Your task to perform on an android device: Go to wifi settings Image 0: 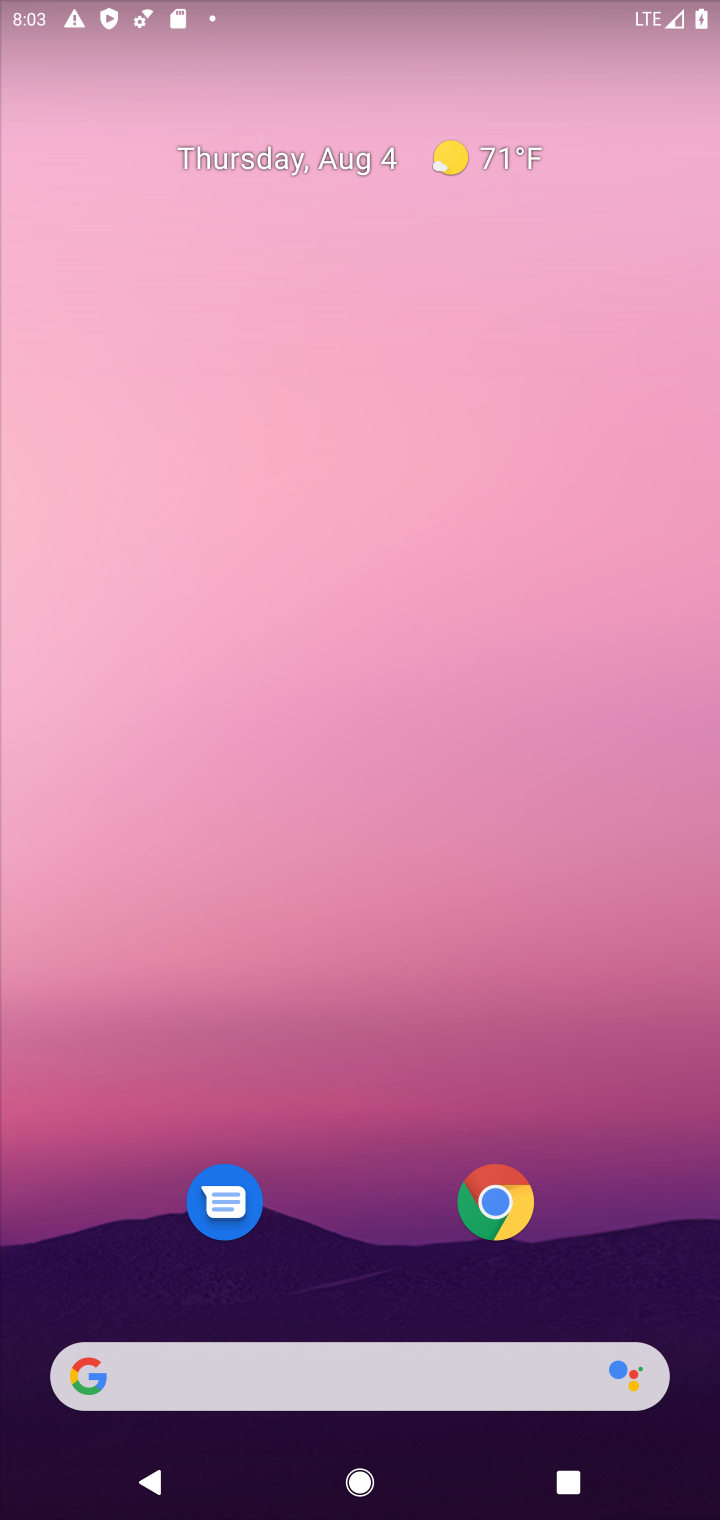
Step 0: drag from (391, 985) to (401, 373)
Your task to perform on an android device: Go to wifi settings Image 1: 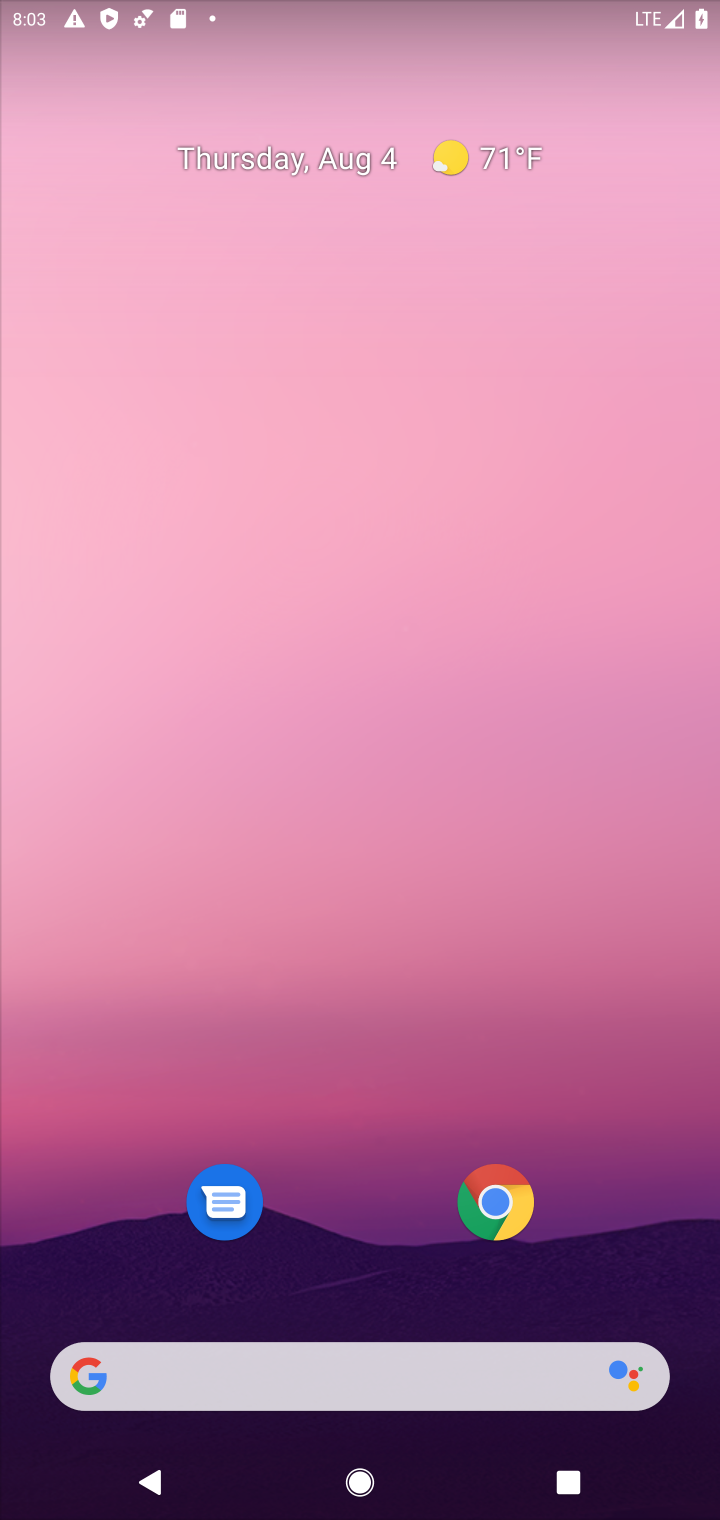
Step 1: drag from (382, 1143) to (382, 180)
Your task to perform on an android device: Go to wifi settings Image 2: 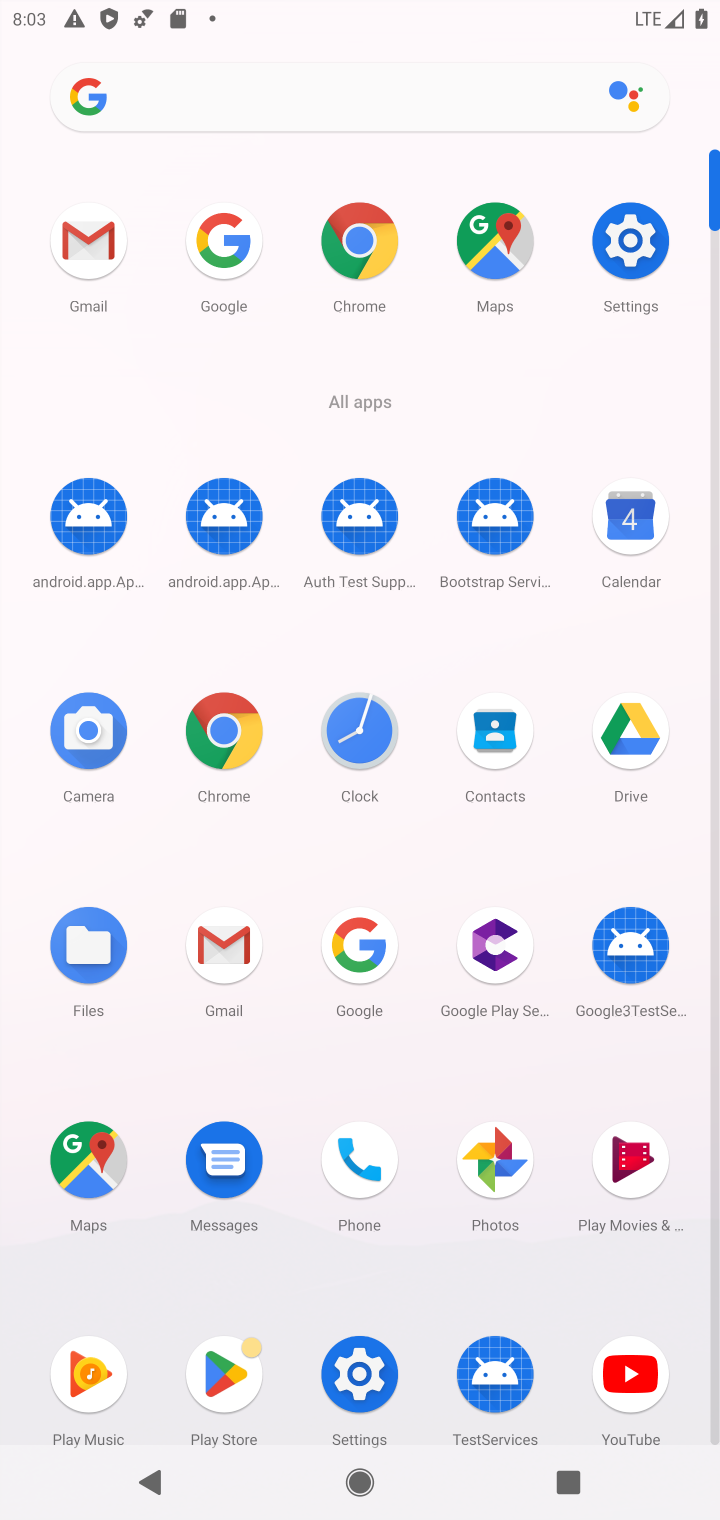
Step 2: click (617, 276)
Your task to perform on an android device: Go to wifi settings Image 3: 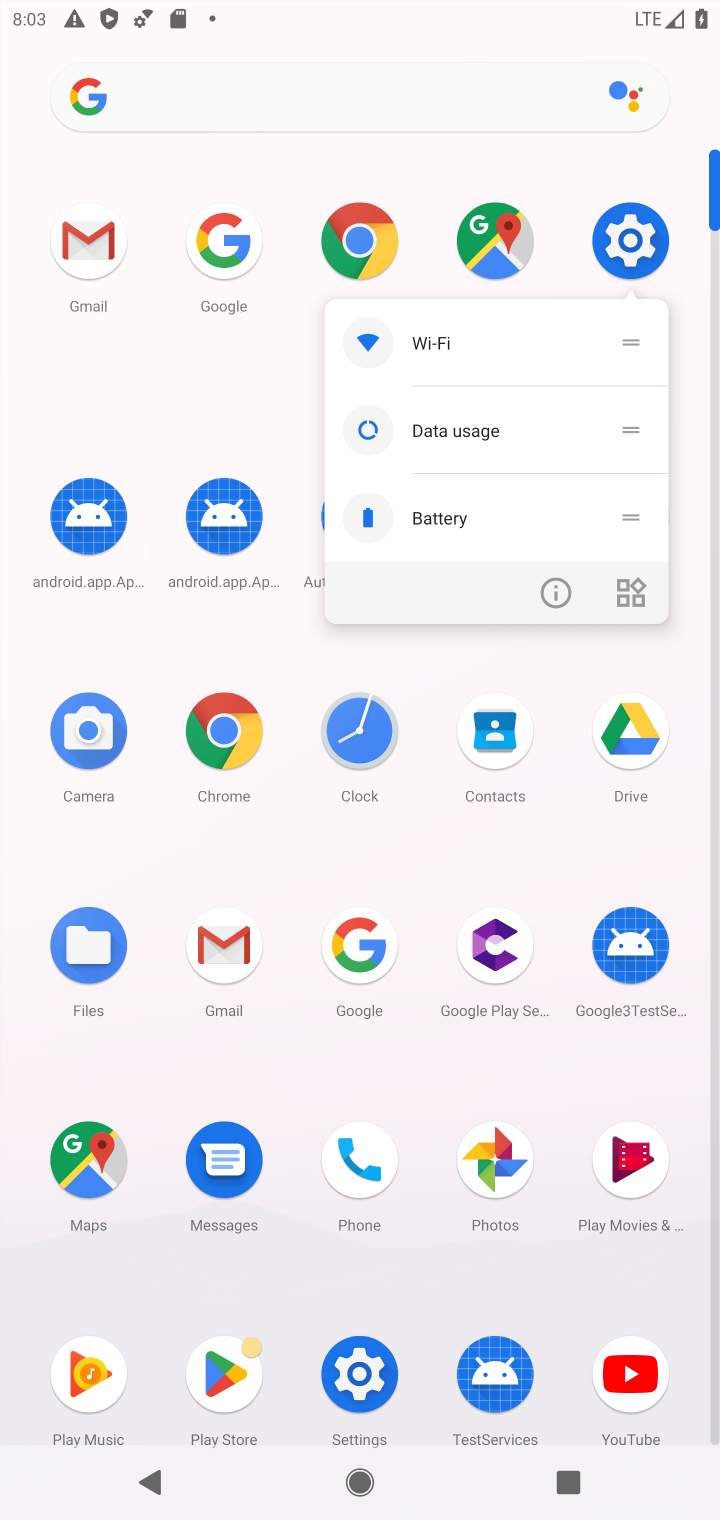
Step 3: click (626, 253)
Your task to perform on an android device: Go to wifi settings Image 4: 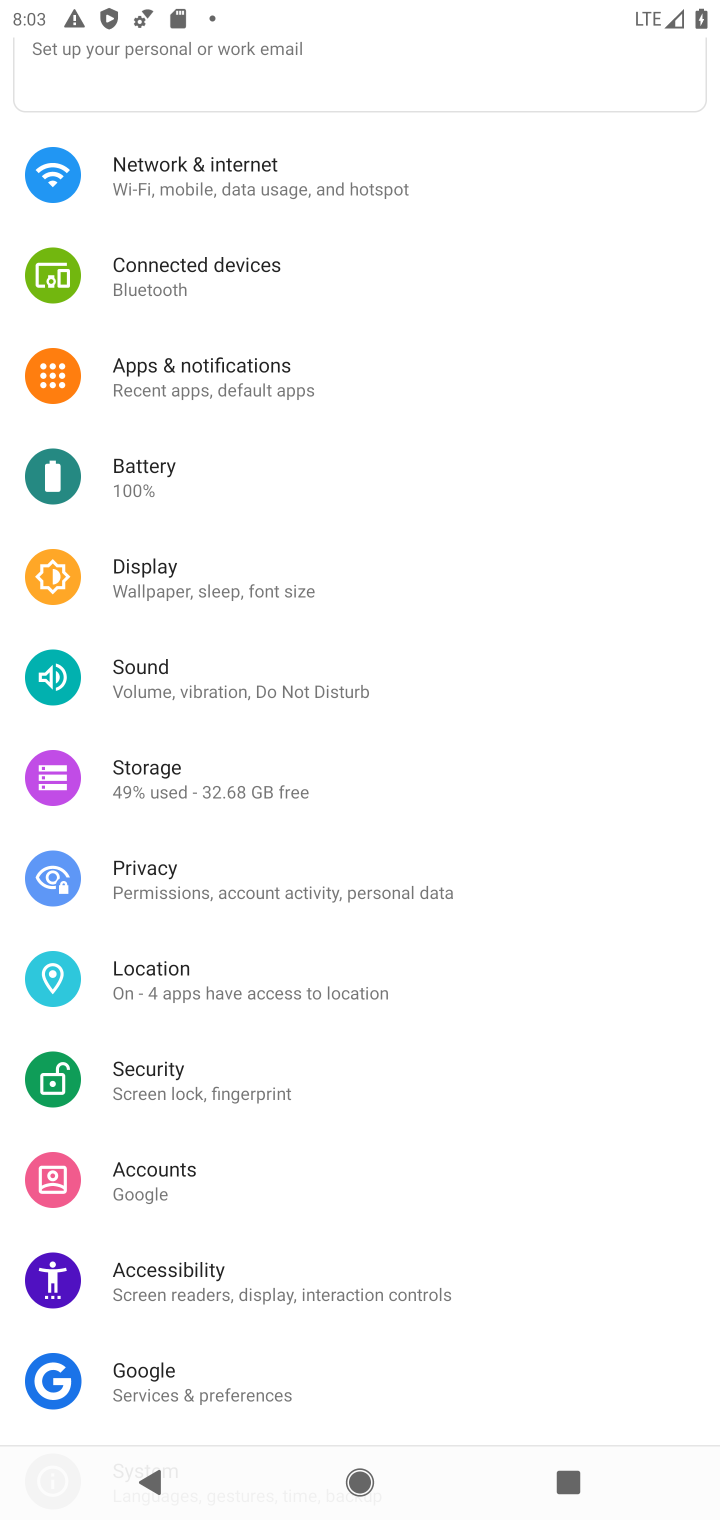
Step 4: click (200, 209)
Your task to perform on an android device: Go to wifi settings Image 5: 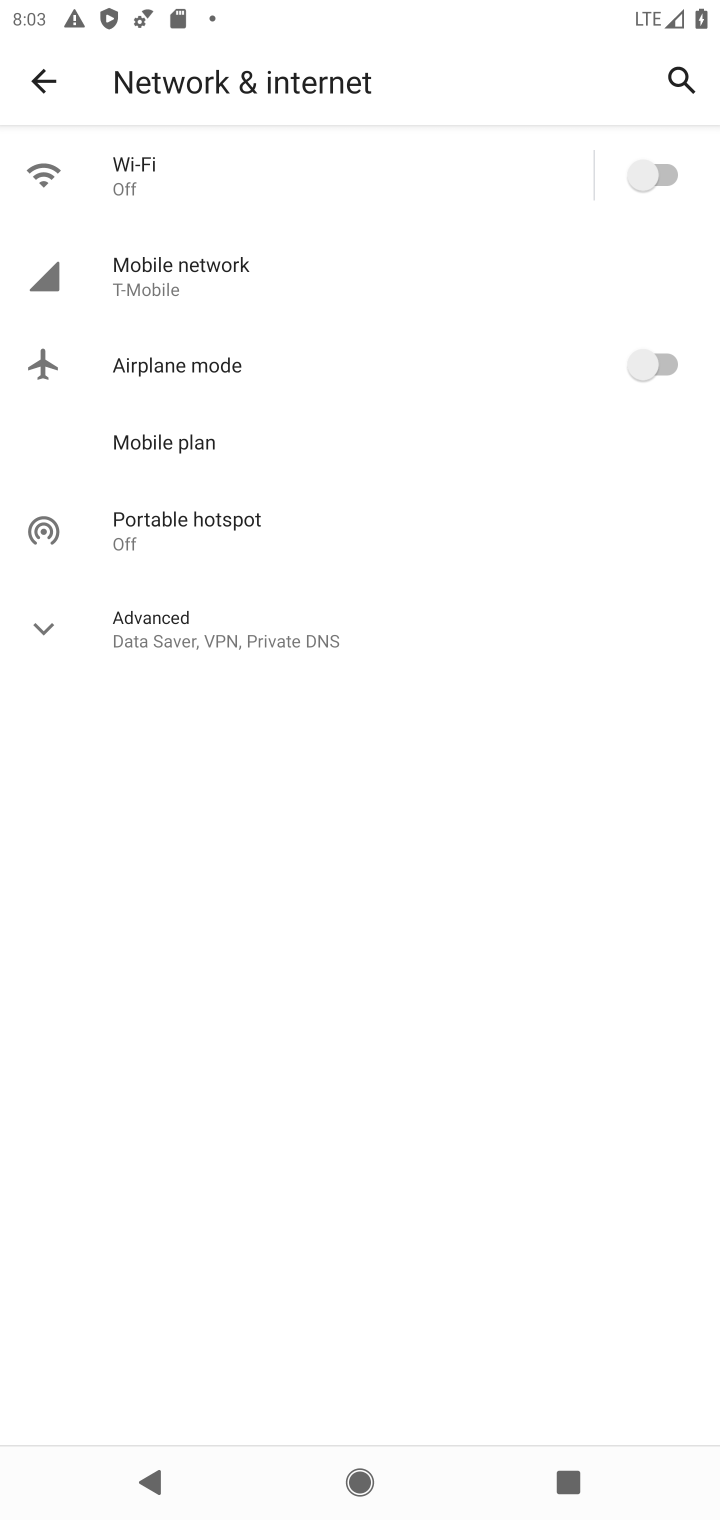
Step 5: click (136, 176)
Your task to perform on an android device: Go to wifi settings Image 6: 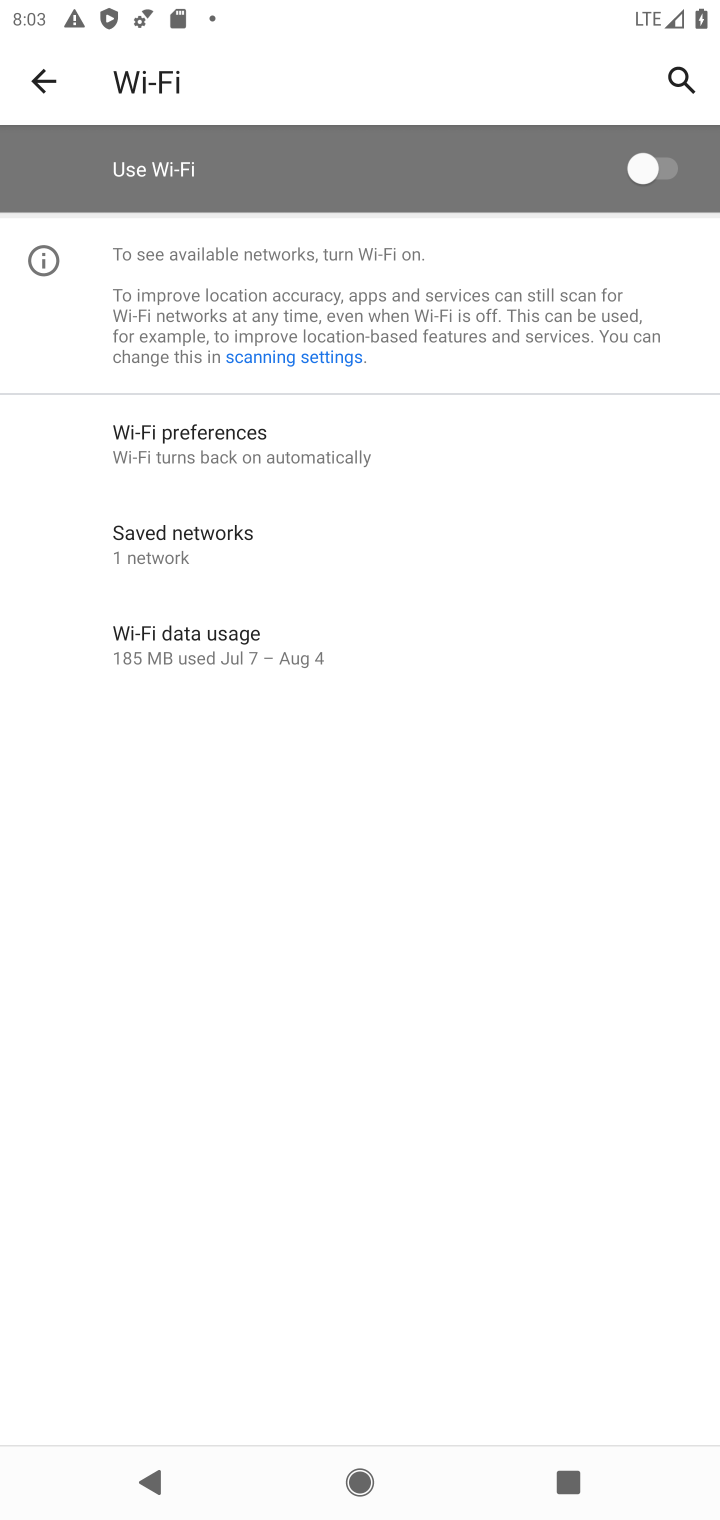
Step 6: task complete